Your task to perform on an android device: turn on notifications settings in the gmail app Image 0: 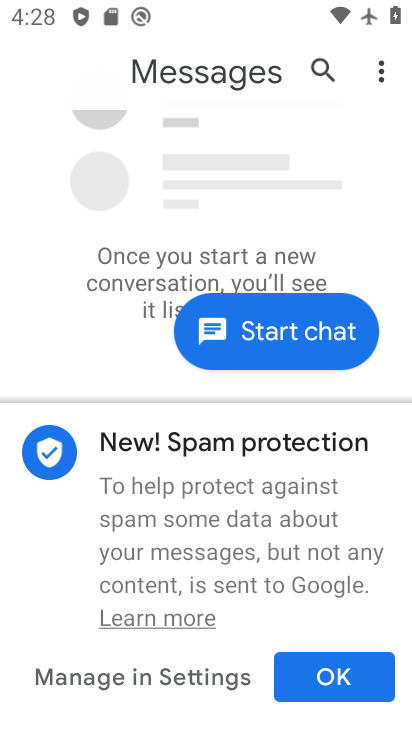
Step 0: press home button
Your task to perform on an android device: turn on notifications settings in the gmail app Image 1: 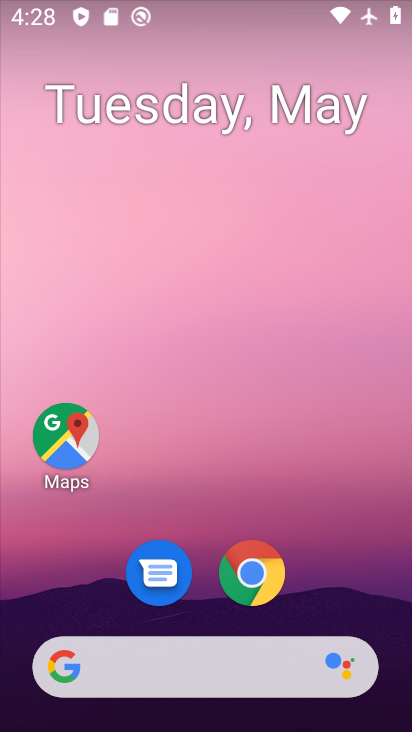
Step 1: drag from (322, 561) to (288, 54)
Your task to perform on an android device: turn on notifications settings in the gmail app Image 2: 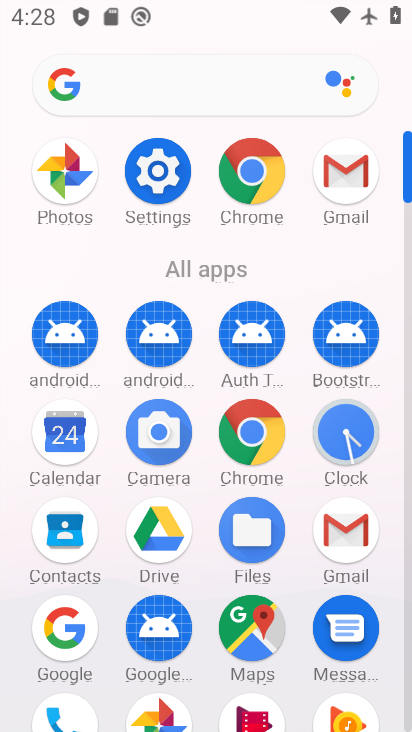
Step 2: click (341, 170)
Your task to perform on an android device: turn on notifications settings in the gmail app Image 3: 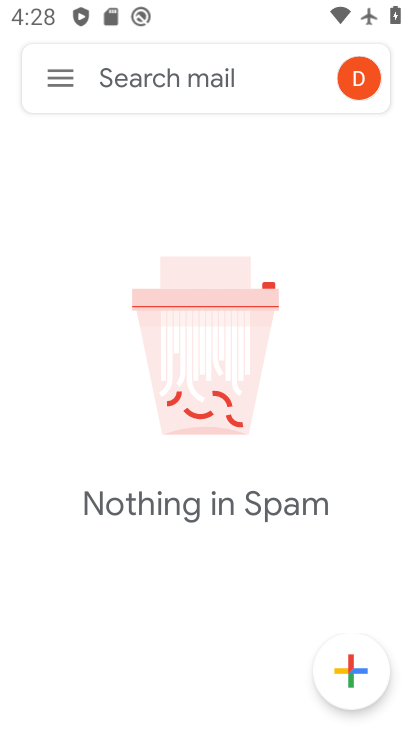
Step 3: click (59, 69)
Your task to perform on an android device: turn on notifications settings in the gmail app Image 4: 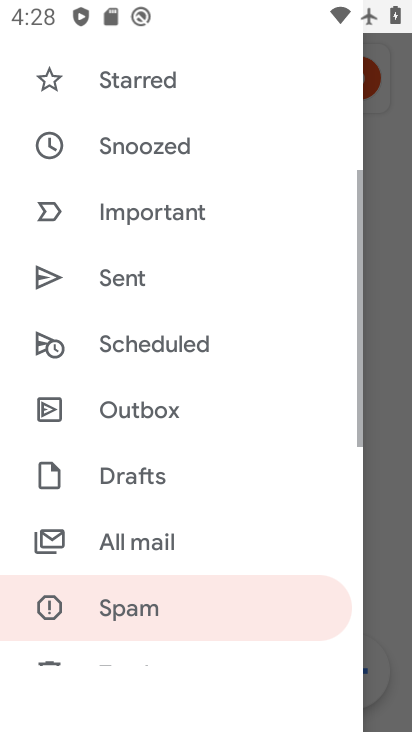
Step 4: drag from (141, 616) to (207, 177)
Your task to perform on an android device: turn on notifications settings in the gmail app Image 5: 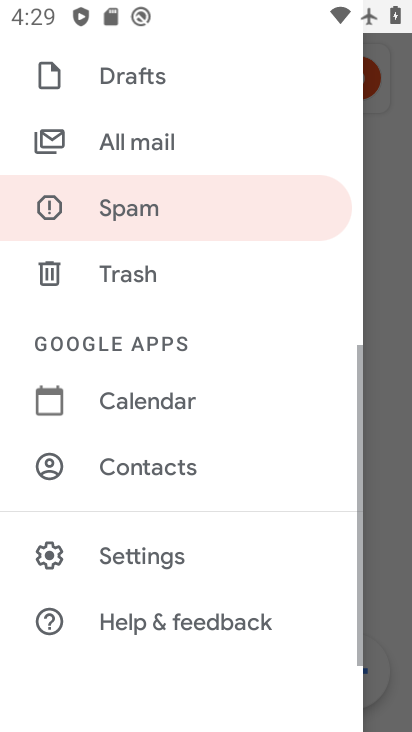
Step 5: click (157, 557)
Your task to perform on an android device: turn on notifications settings in the gmail app Image 6: 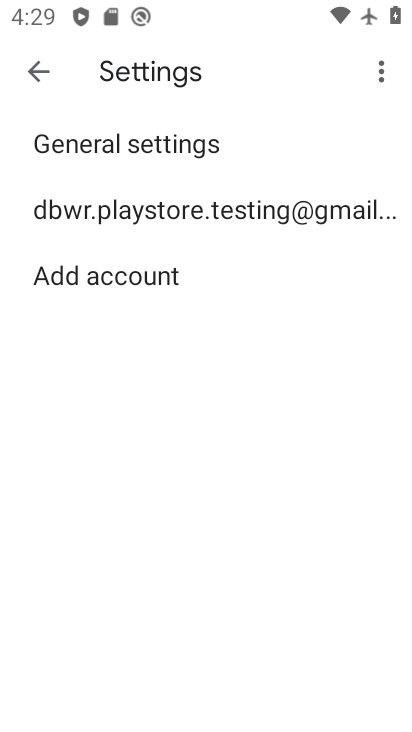
Step 6: click (183, 209)
Your task to perform on an android device: turn on notifications settings in the gmail app Image 7: 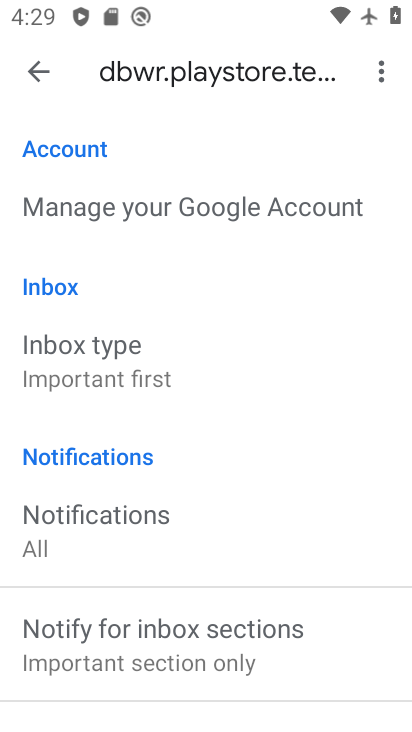
Step 7: drag from (185, 557) to (245, 180)
Your task to perform on an android device: turn on notifications settings in the gmail app Image 8: 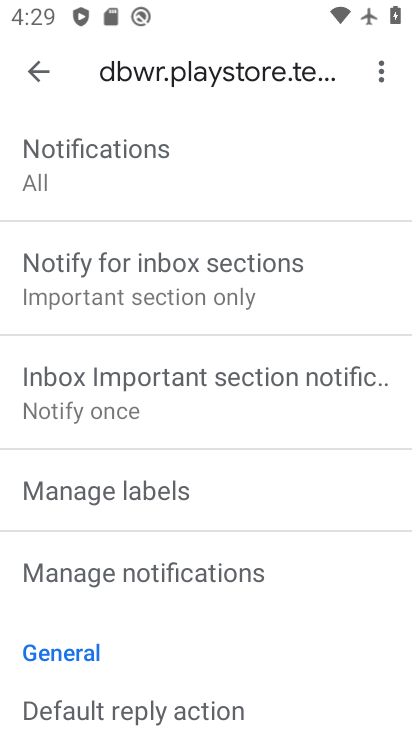
Step 8: click (129, 582)
Your task to perform on an android device: turn on notifications settings in the gmail app Image 9: 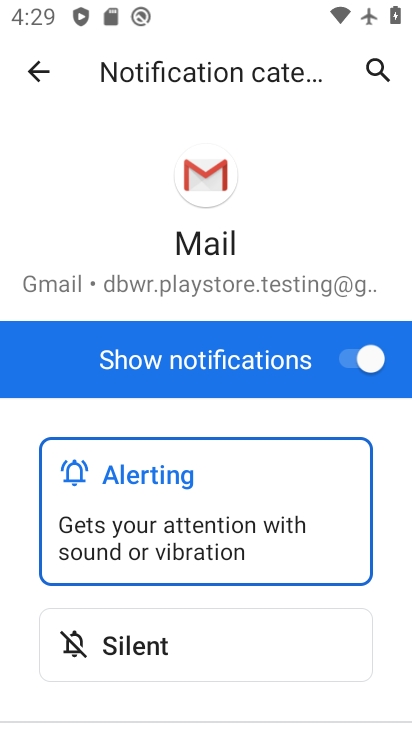
Step 9: task complete